Your task to perform on an android device: Go to battery settings Image 0: 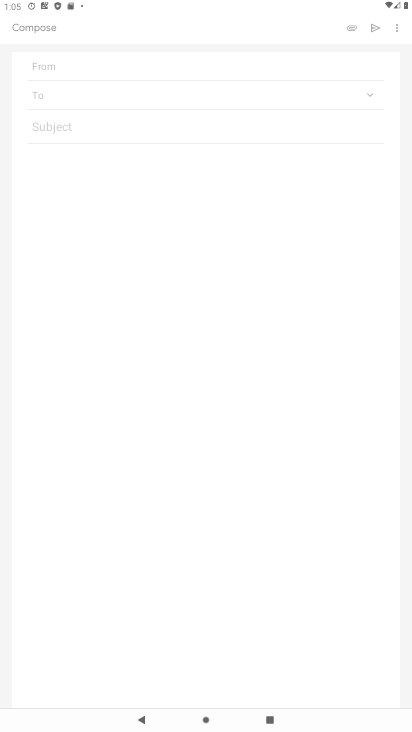
Step 0: drag from (374, 695) to (232, 4)
Your task to perform on an android device: Go to battery settings Image 1: 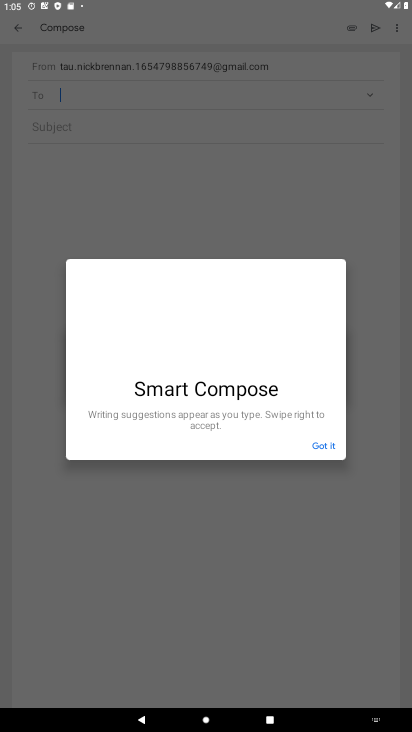
Step 1: press home button
Your task to perform on an android device: Go to battery settings Image 2: 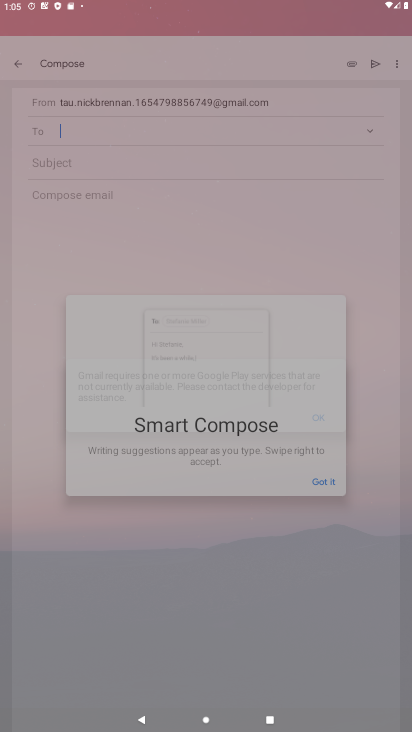
Step 2: drag from (380, 686) to (250, 12)
Your task to perform on an android device: Go to battery settings Image 3: 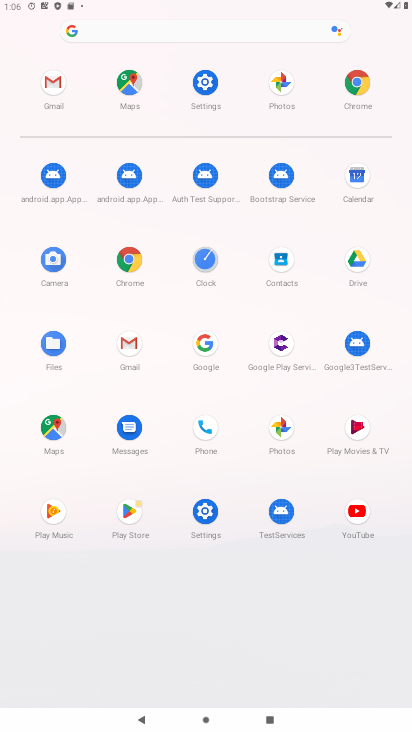
Step 3: click (199, 517)
Your task to perform on an android device: Go to battery settings Image 4: 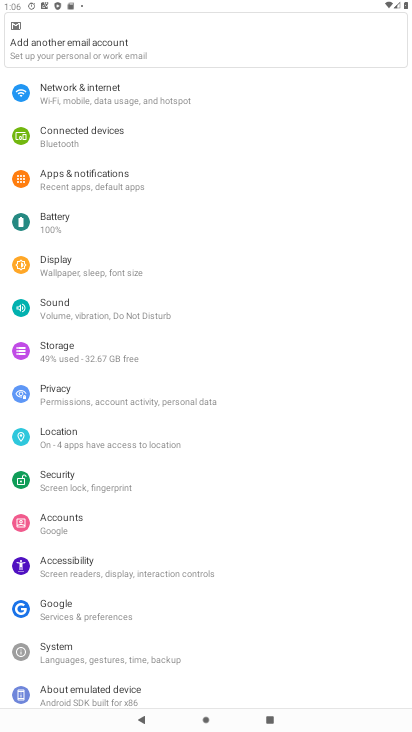
Step 4: click (89, 212)
Your task to perform on an android device: Go to battery settings Image 5: 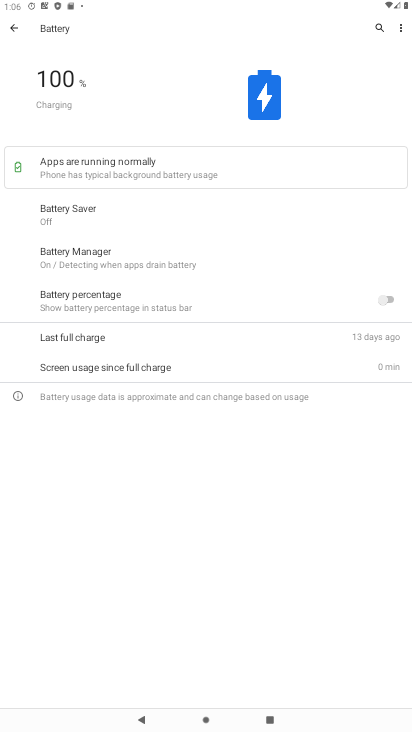
Step 5: task complete